Your task to perform on an android device: Checkthe settings for the Amazon Prime Music app Image 0: 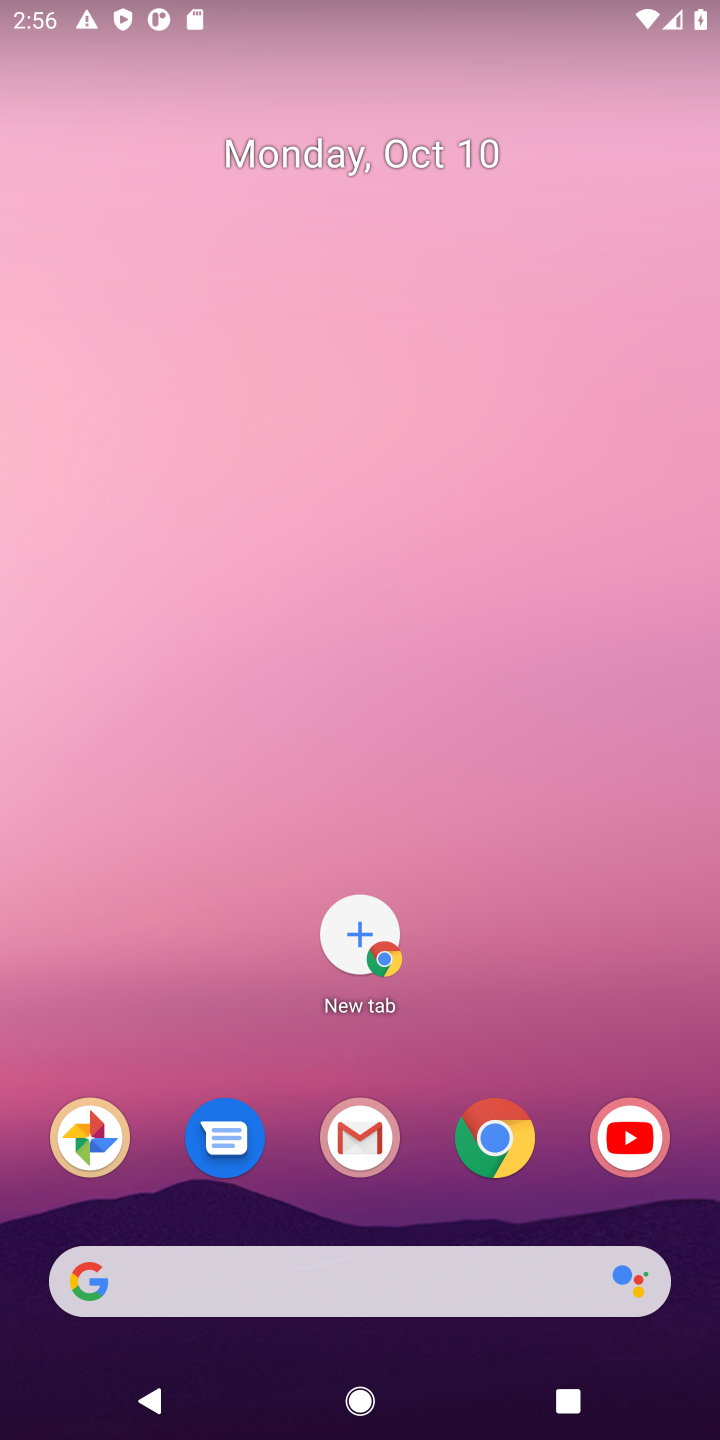
Step 0: drag from (488, 1384) to (488, 677)
Your task to perform on an android device: Checkthe settings for the Amazon Prime Music app Image 1: 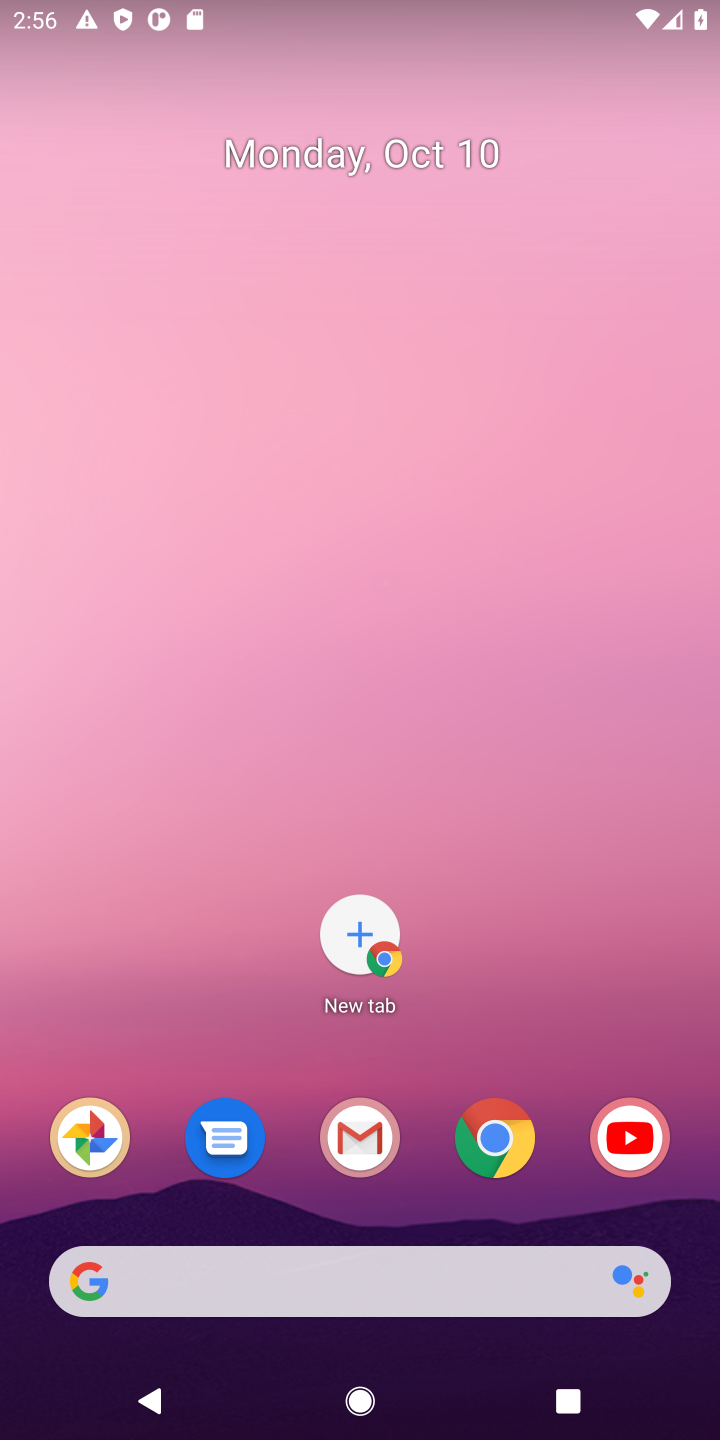
Step 1: drag from (347, 1265) to (351, 327)
Your task to perform on an android device: Checkthe settings for the Amazon Prime Music app Image 2: 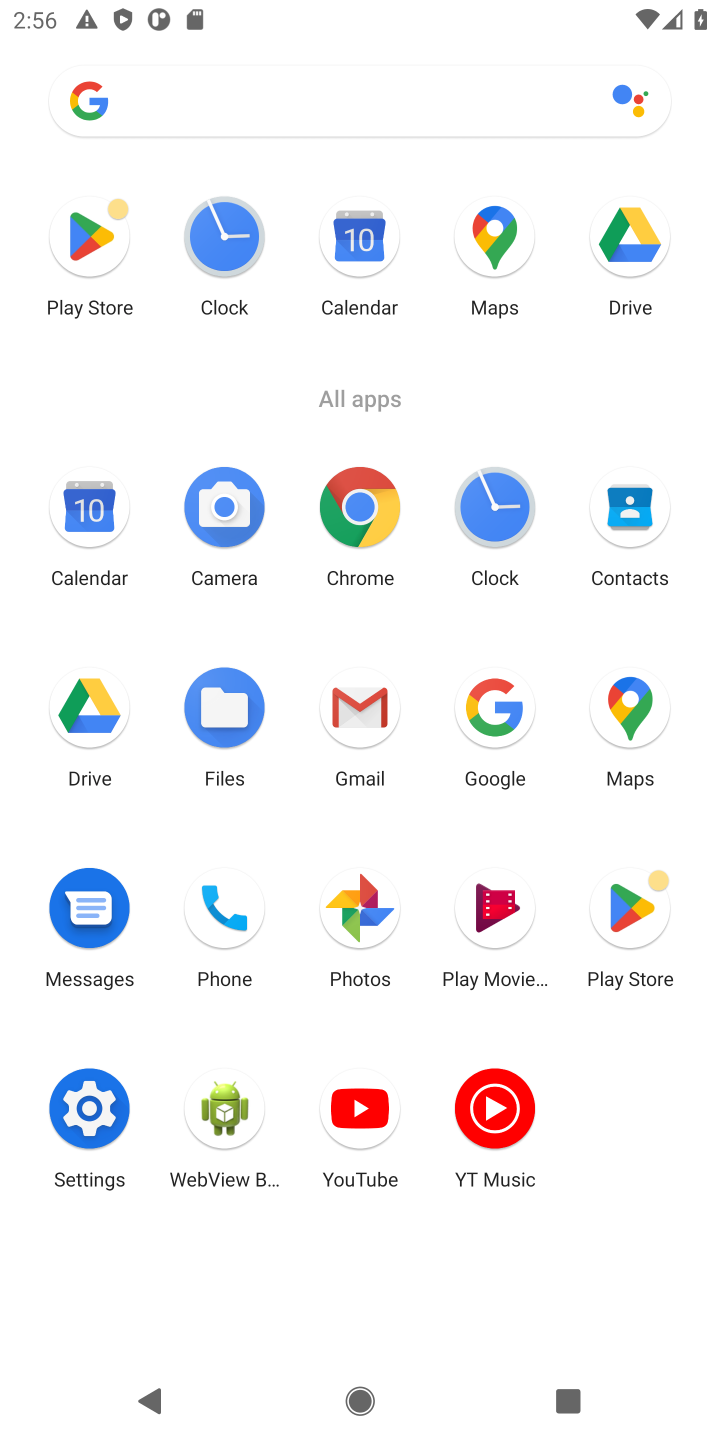
Step 2: click (85, 1125)
Your task to perform on an android device: Checkthe settings for the Amazon Prime Music app Image 3: 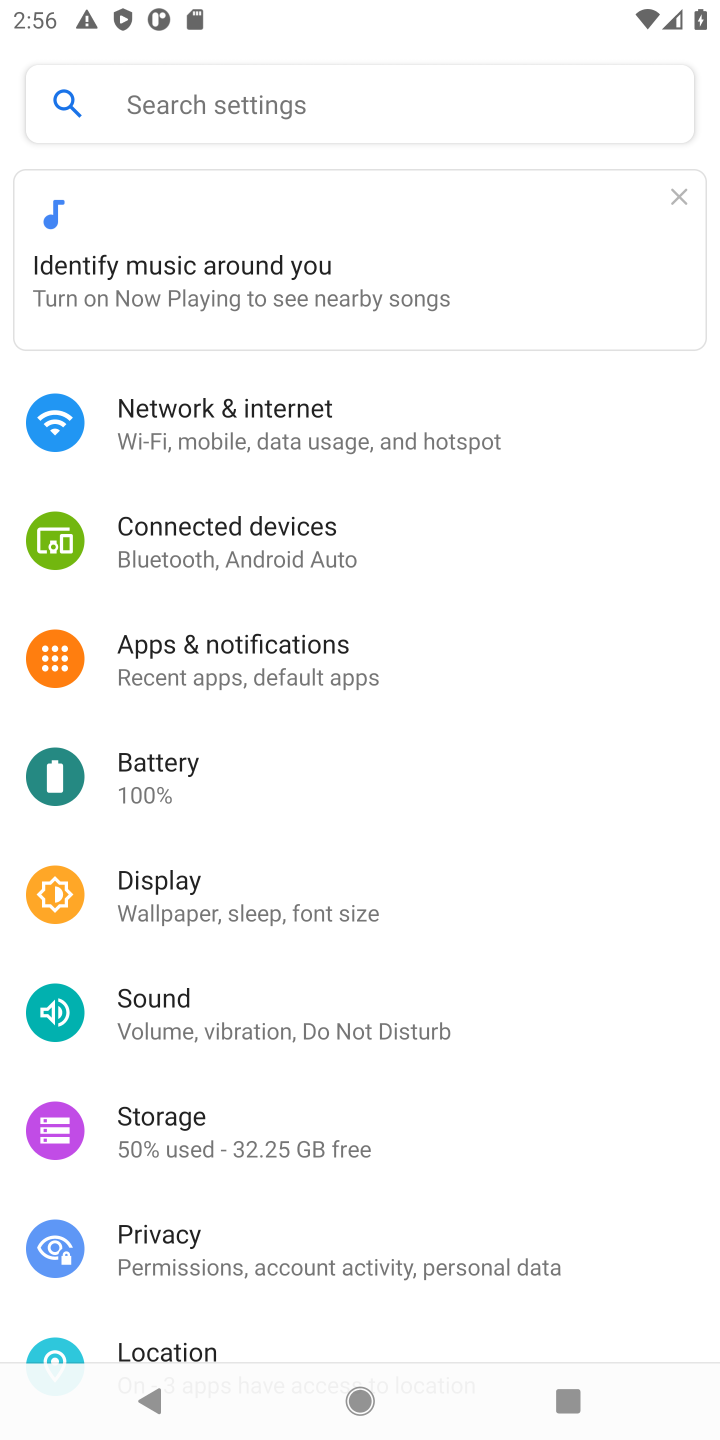
Step 3: click (384, 668)
Your task to perform on an android device: Checkthe settings for the Amazon Prime Music app Image 4: 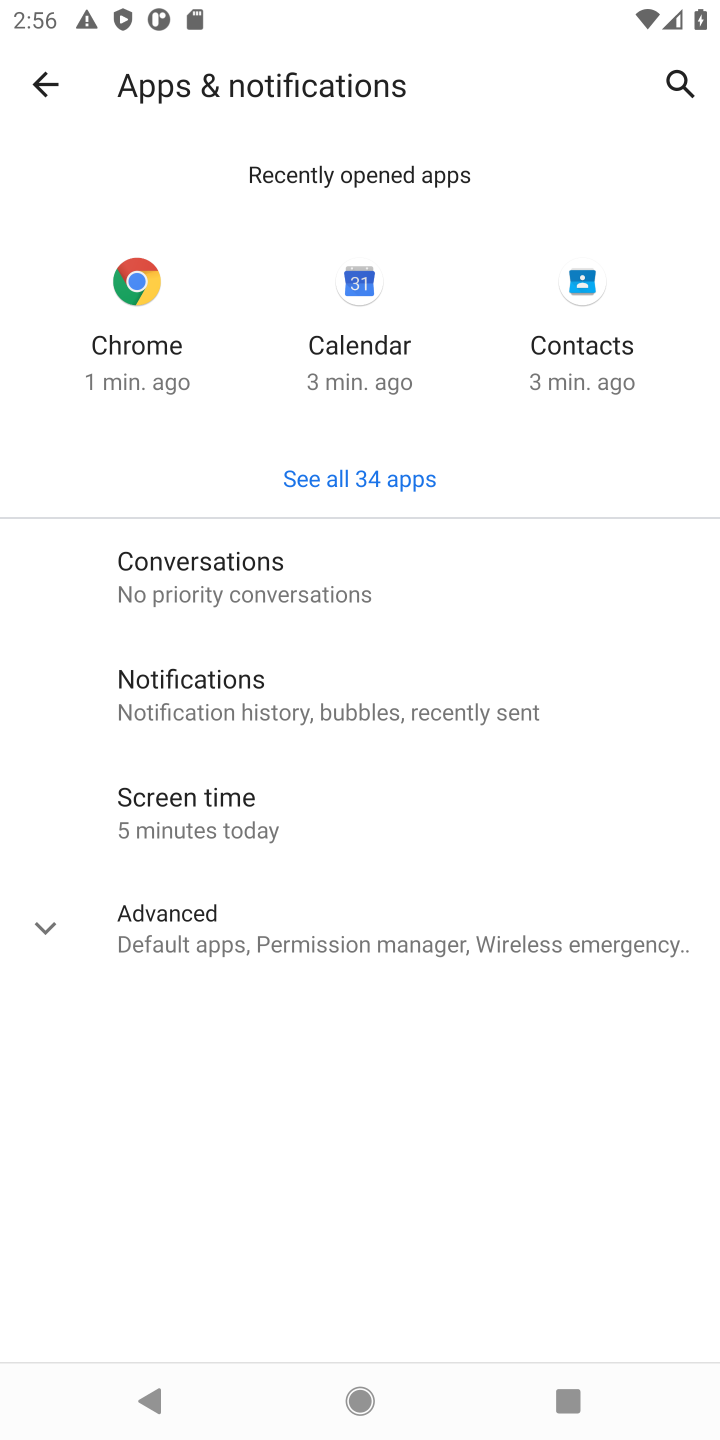
Step 4: click (372, 490)
Your task to perform on an android device: Checkthe settings for the Amazon Prime Music app Image 5: 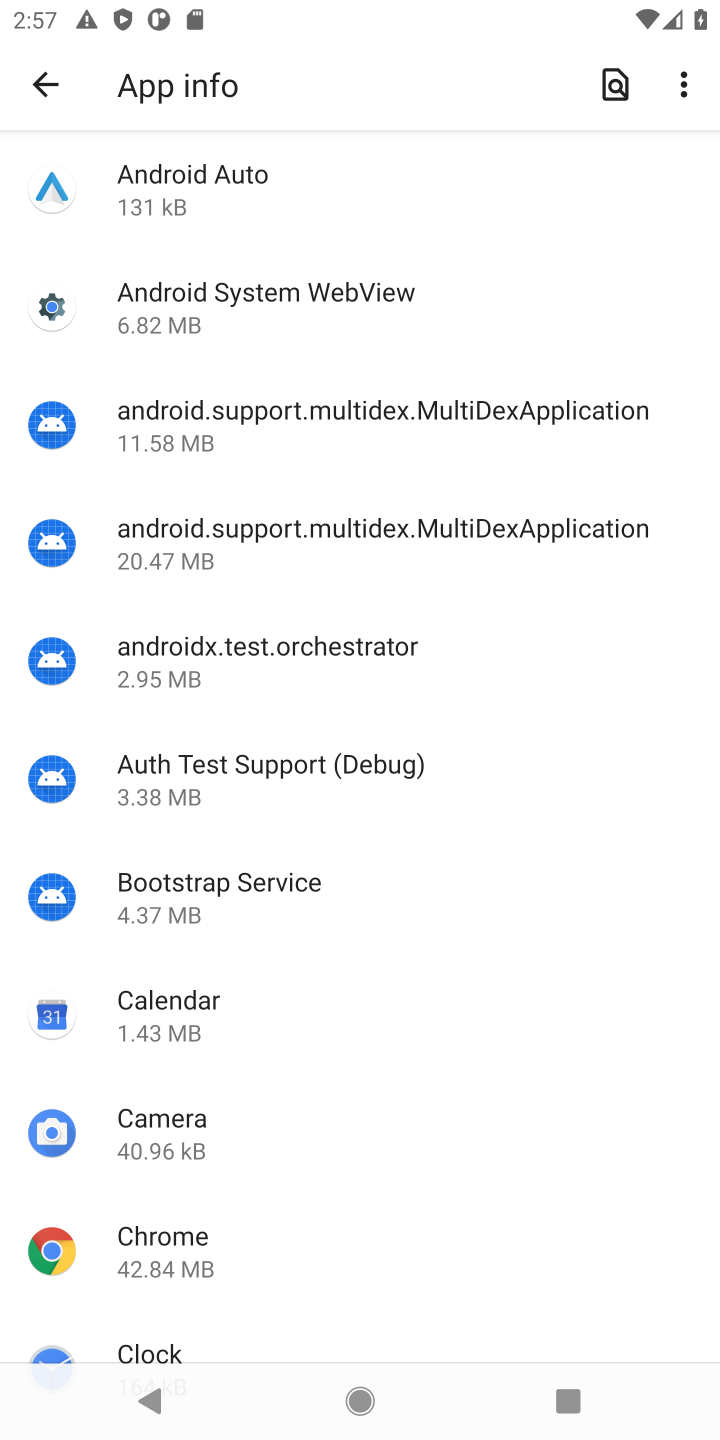
Step 5: drag from (381, 1182) to (381, 392)
Your task to perform on an android device: Checkthe settings for the Amazon Prime Music app Image 6: 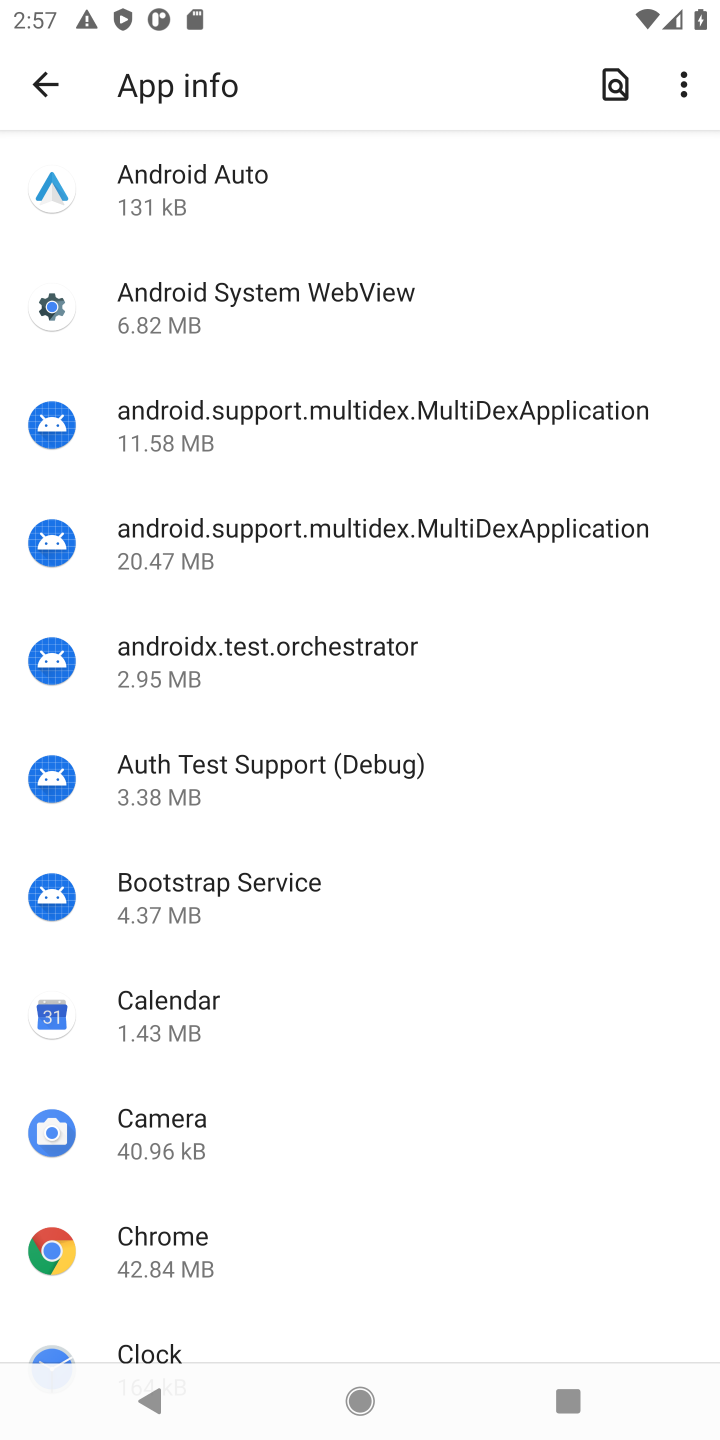
Step 6: drag from (238, 1155) to (204, 386)
Your task to perform on an android device: Checkthe settings for the Amazon Prime Music app Image 7: 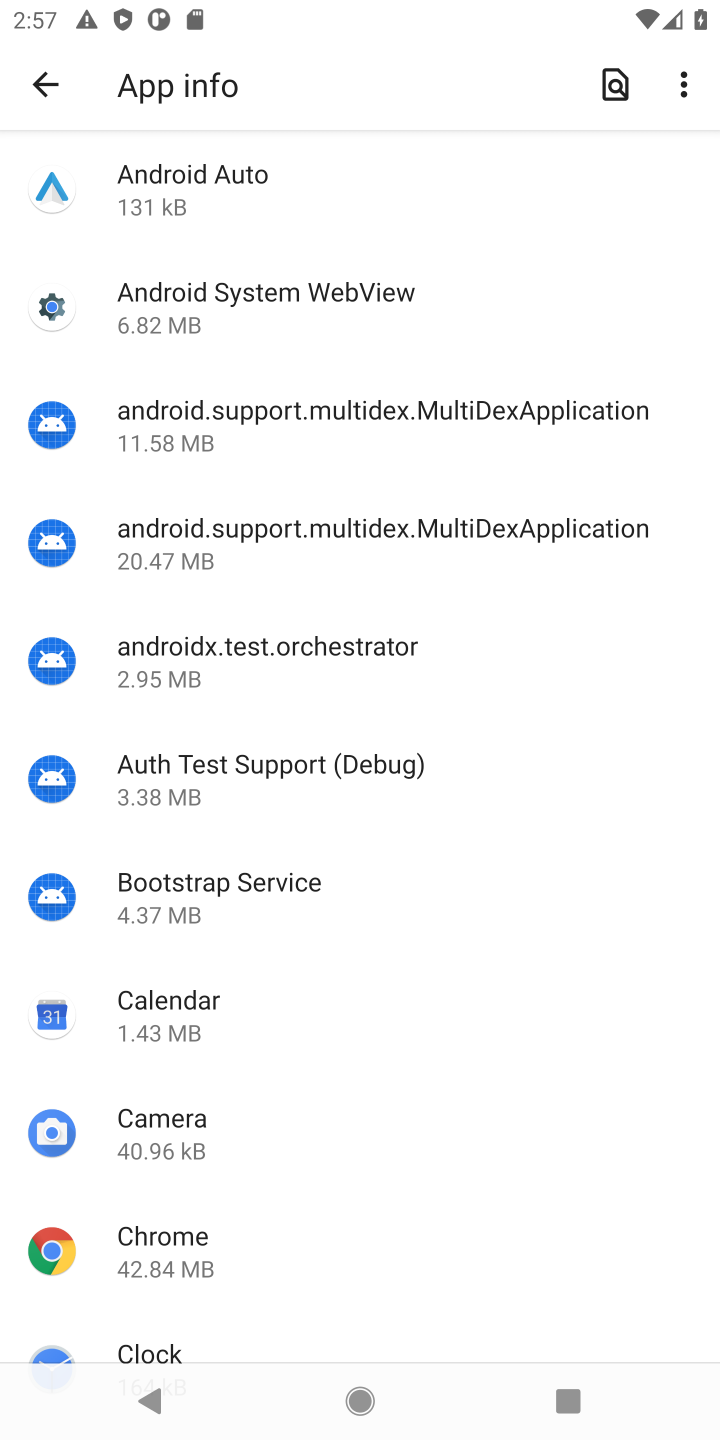
Step 7: drag from (604, 992) to (604, 245)
Your task to perform on an android device: Checkthe settings for the Amazon Prime Music app Image 8: 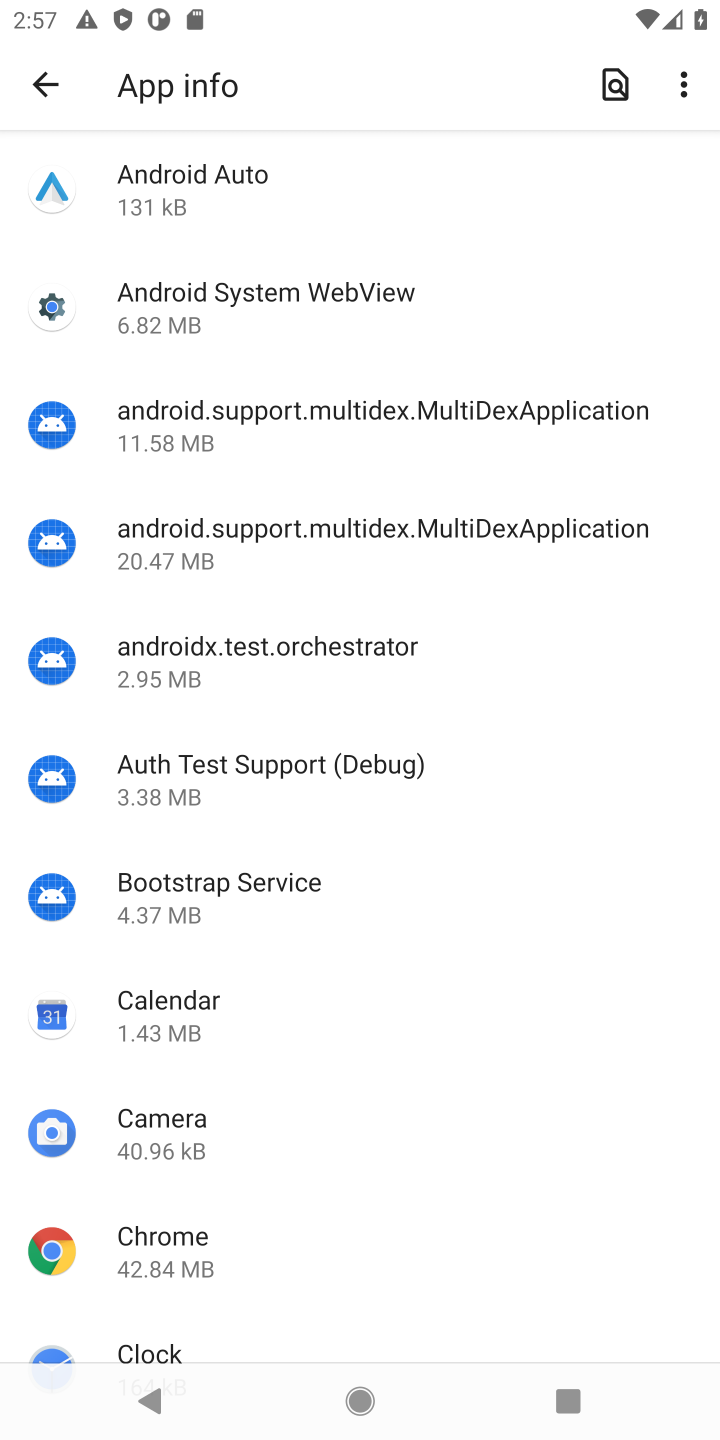
Step 8: drag from (402, 1146) to (369, 326)
Your task to perform on an android device: Checkthe settings for the Amazon Prime Music app Image 9: 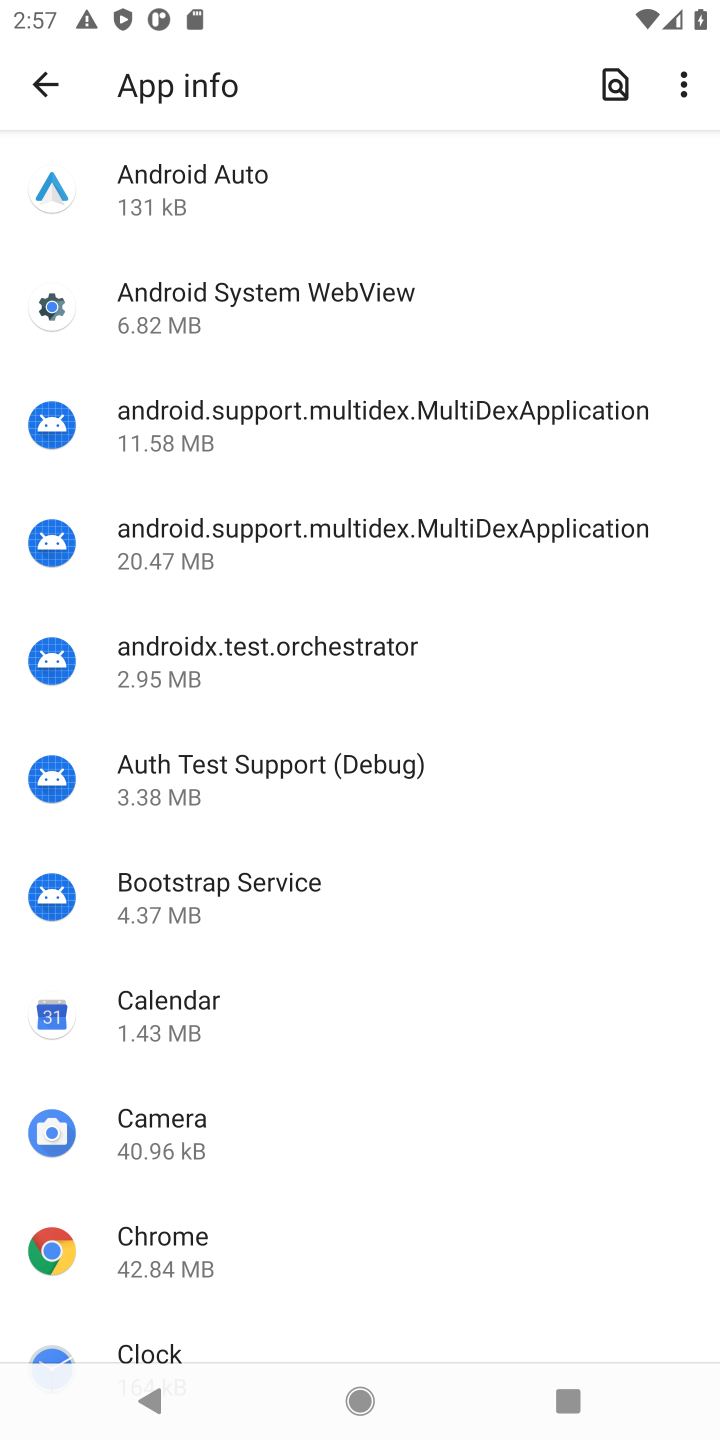
Step 9: drag from (300, 1054) to (247, 350)
Your task to perform on an android device: Checkthe settings for the Amazon Prime Music app Image 10: 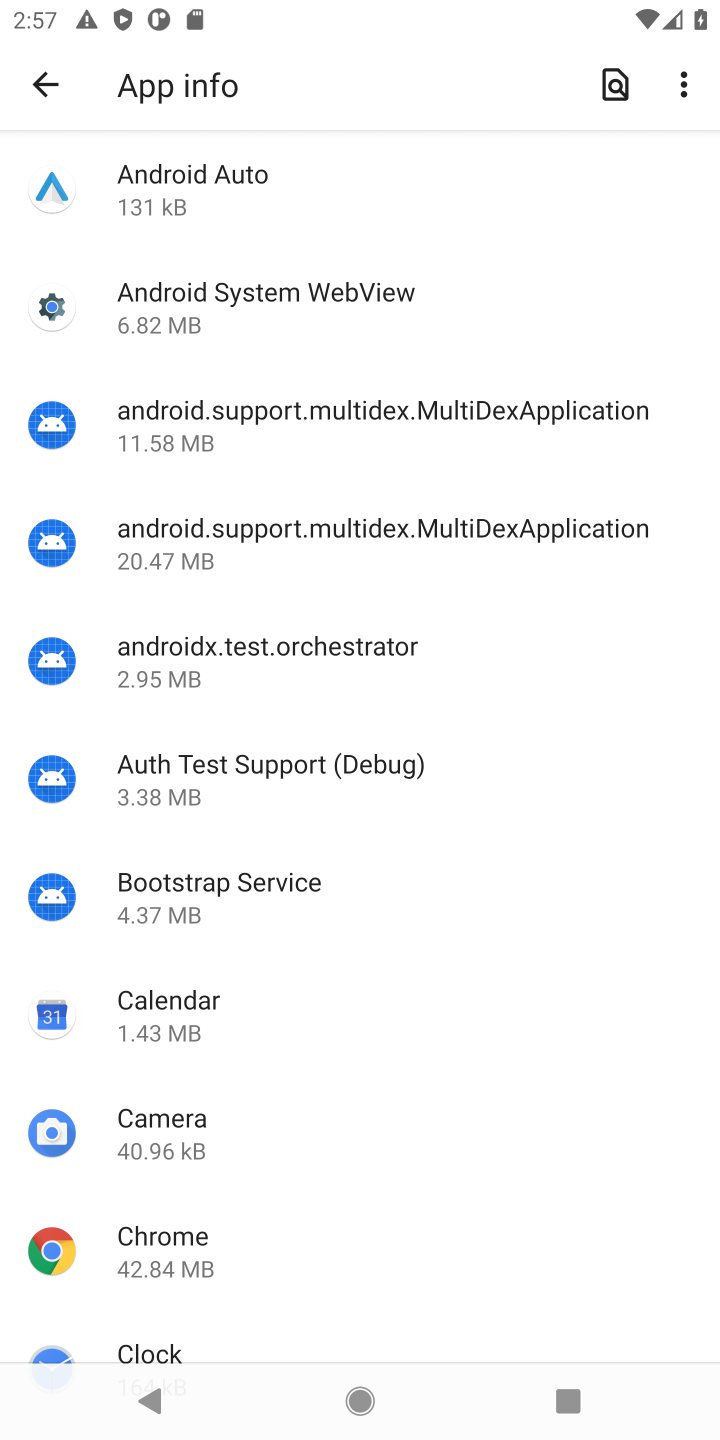
Step 10: drag from (282, 1264) to (301, 573)
Your task to perform on an android device: Checkthe settings for the Amazon Prime Music app Image 11: 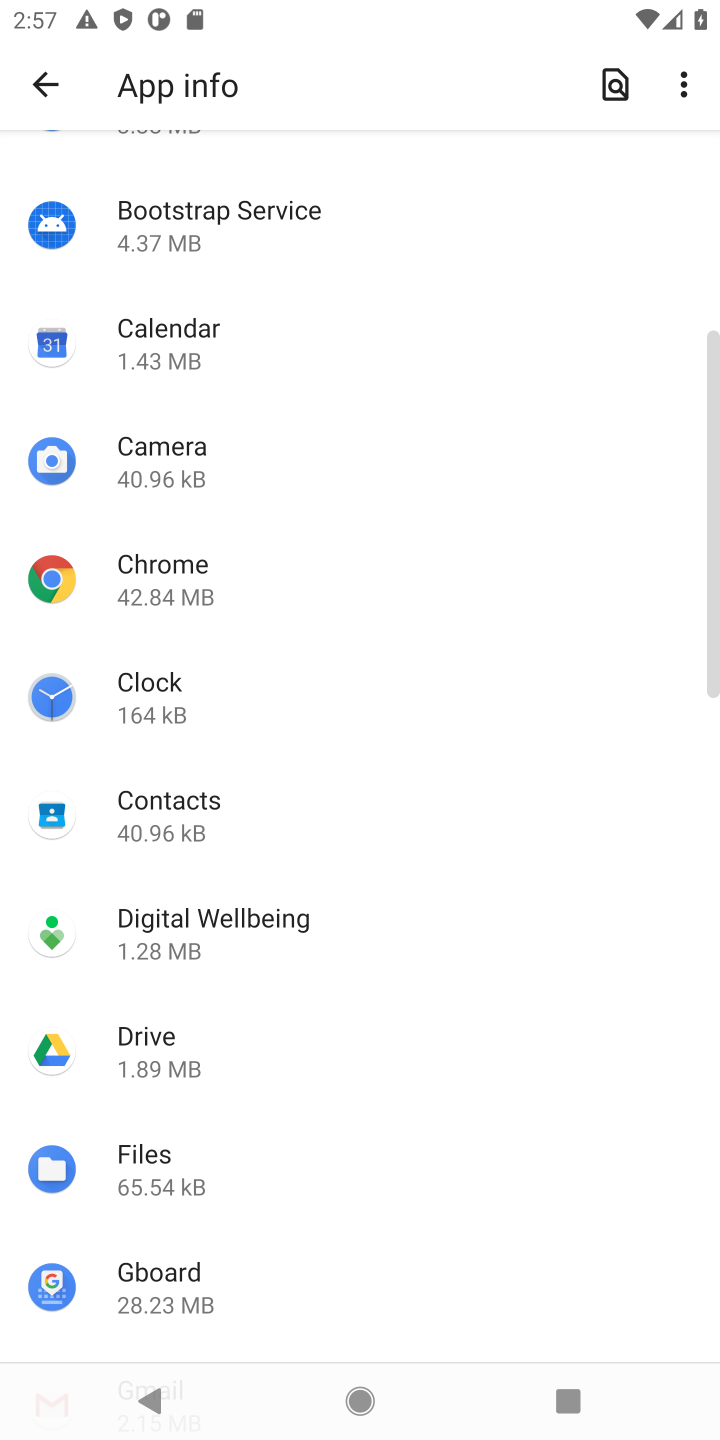
Step 11: drag from (300, 1167) to (352, 375)
Your task to perform on an android device: Checkthe settings for the Amazon Prime Music app Image 12: 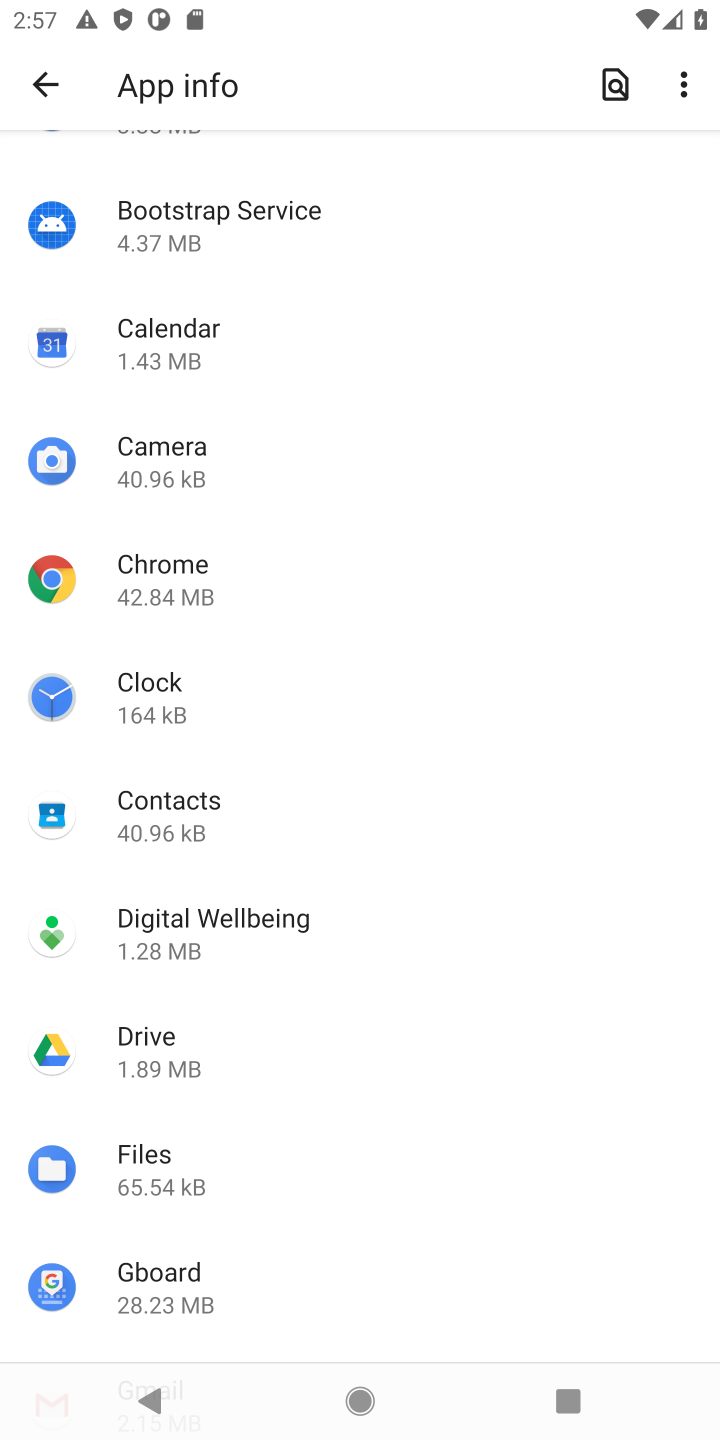
Step 12: drag from (313, 1104) to (299, 378)
Your task to perform on an android device: Checkthe settings for the Amazon Prime Music app Image 13: 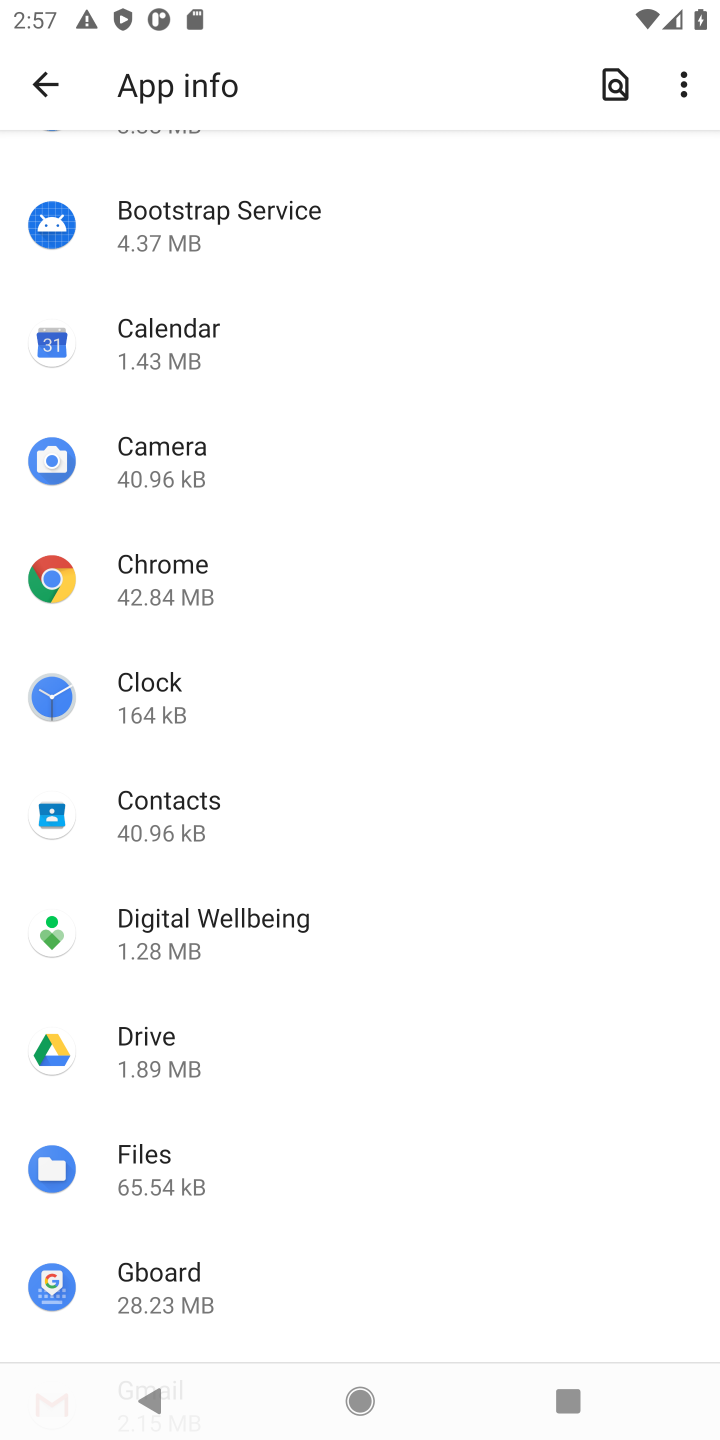
Step 13: press back button
Your task to perform on an android device: Checkthe settings for the Amazon Prime Music app Image 14: 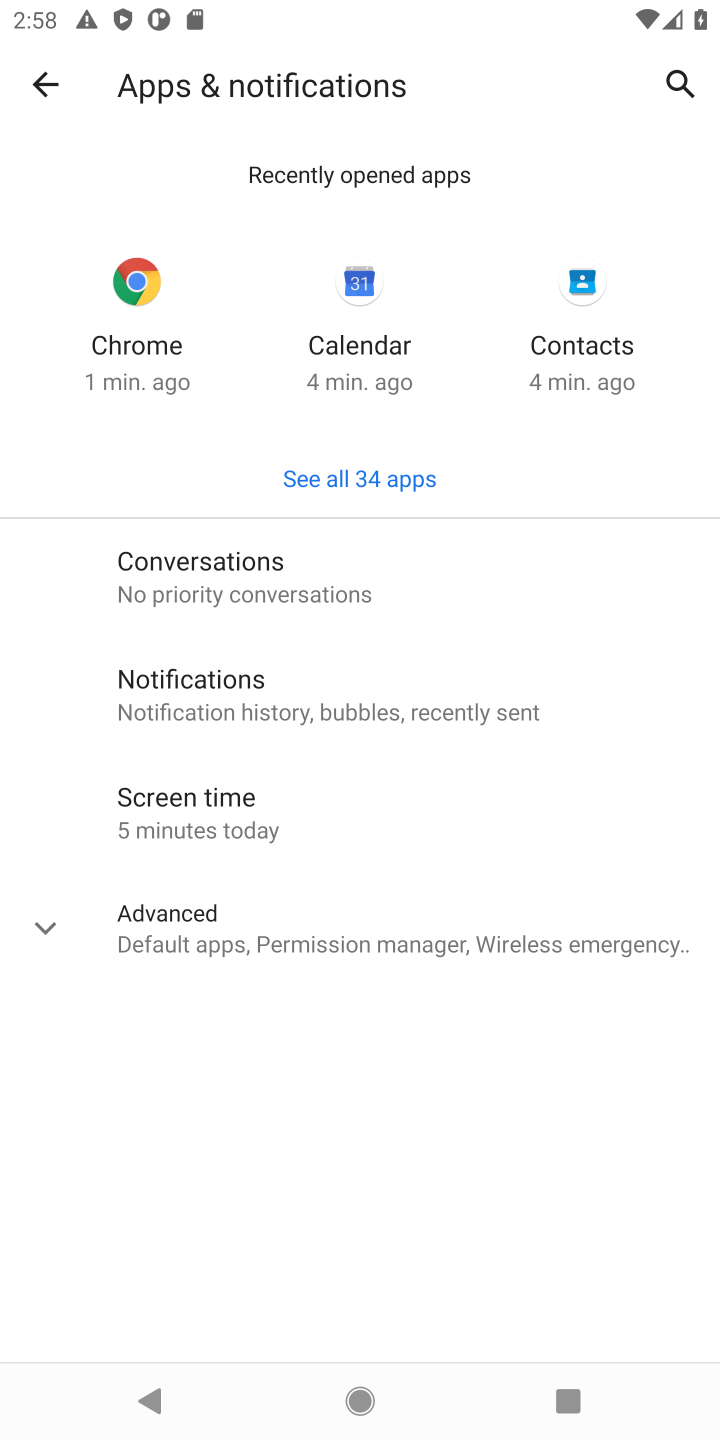
Step 14: click (408, 481)
Your task to perform on an android device: Checkthe settings for the Amazon Prime Music app Image 15: 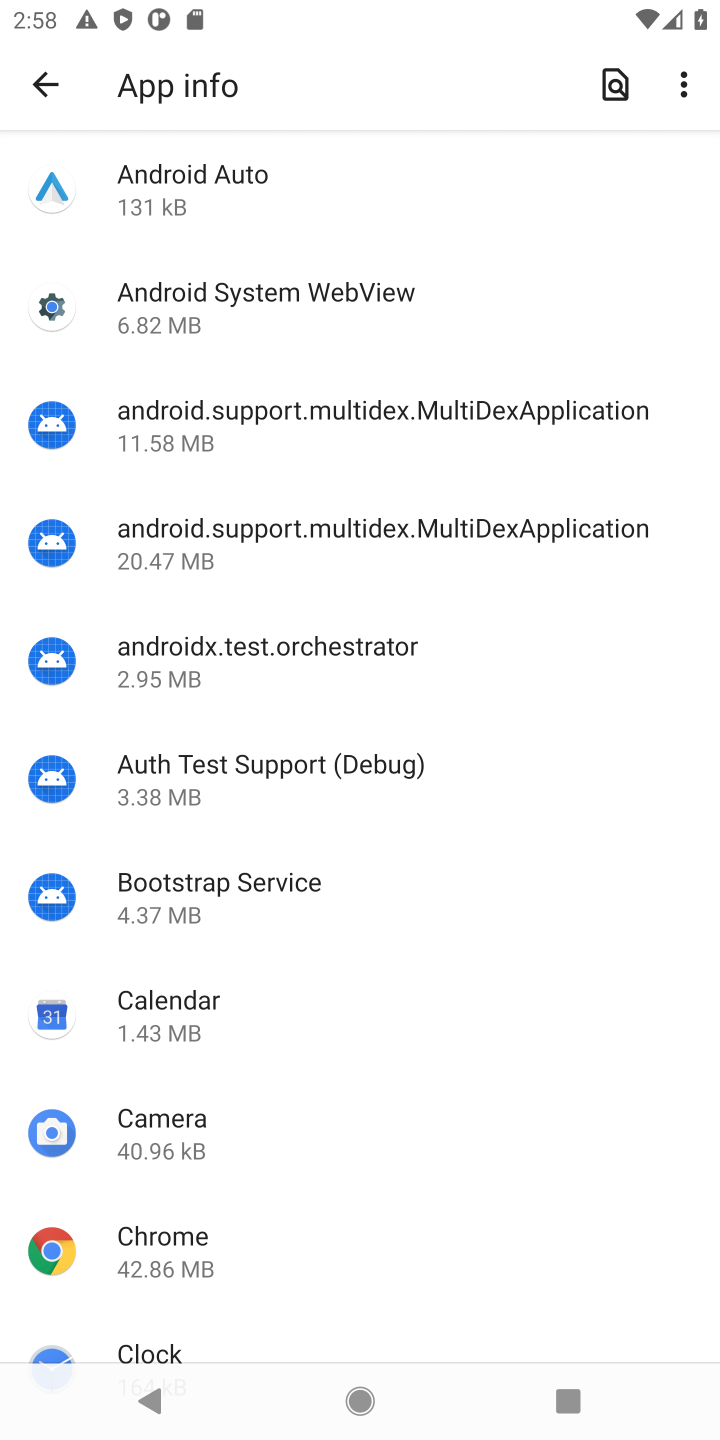
Step 15: task complete